Your task to perform on an android device: empty trash in google photos Image 0: 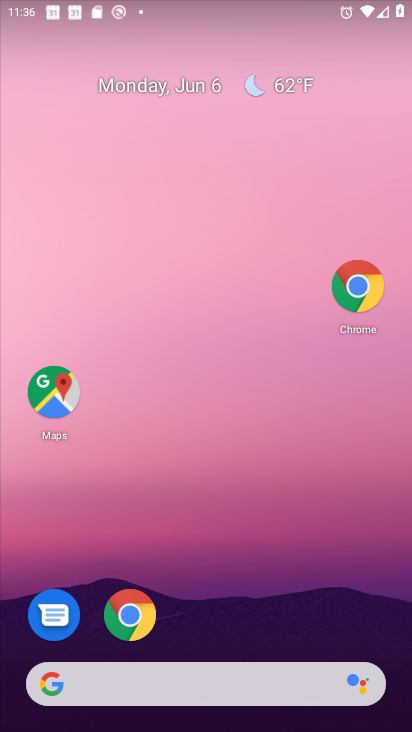
Step 0: drag from (212, 457) to (107, 85)
Your task to perform on an android device: empty trash in google photos Image 1: 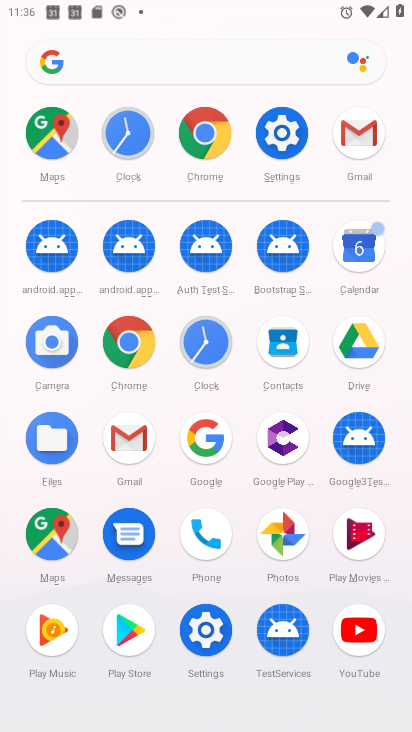
Step 1: click (284, 532)
Your task to perform on an android device: empty trash in google photos Image 2: 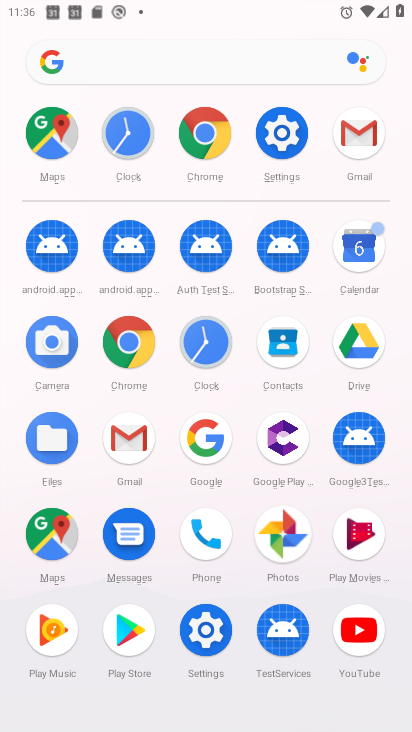
Step 2: click (285, 531)
Your task to perform on an android device: empty trash in google photos Image 3: 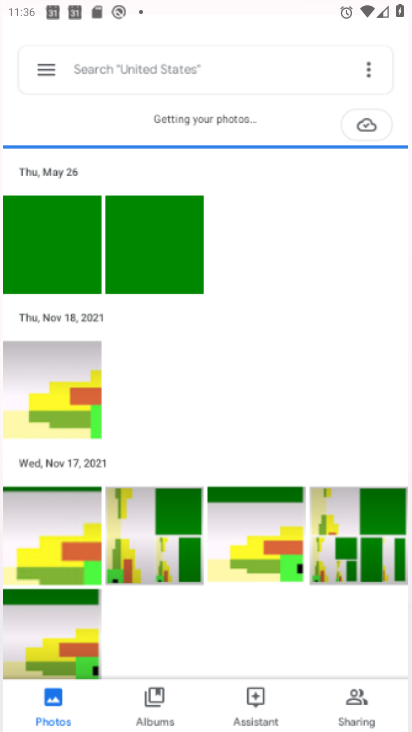
Step 3: click (285, 531)
Your task to perform on an android device: empty trash in google photos Image 4: 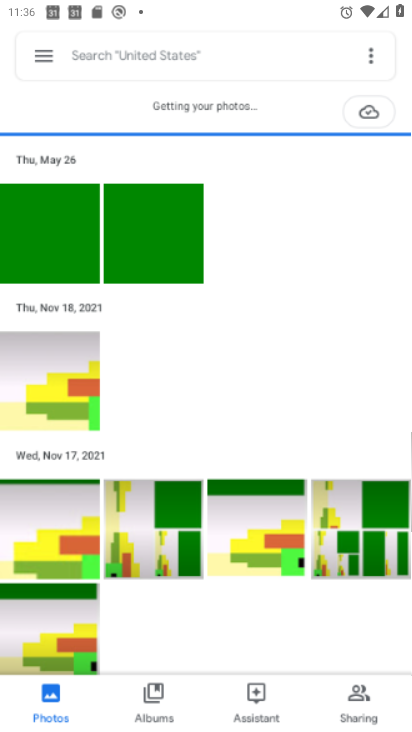
Step 4: click (286, 531)
Your task to perform on an android device: empty trash in google photos Image 5: 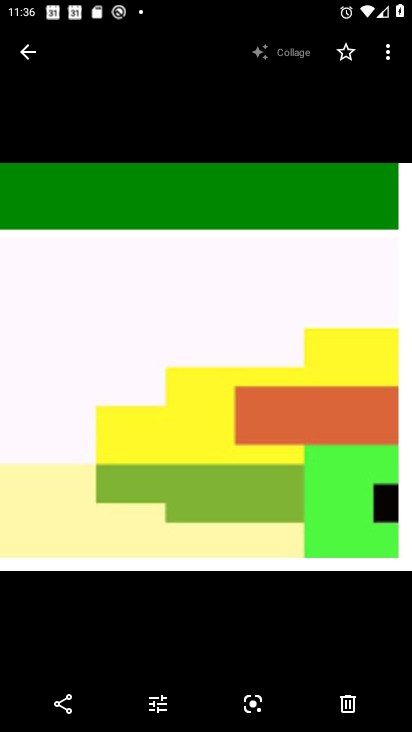
Step 5: click (35, 52)
Your task to perform on an android device: empty trash in google photos Image 6: 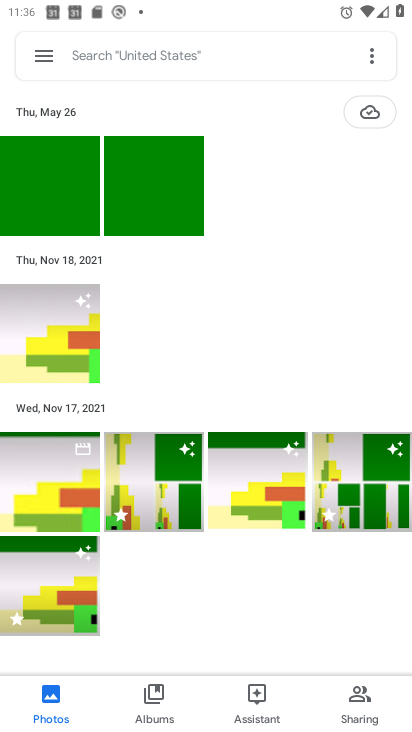
Step 6: click (42, 52)
Your task to perform on an android device: empty trash in google photos Image 7: 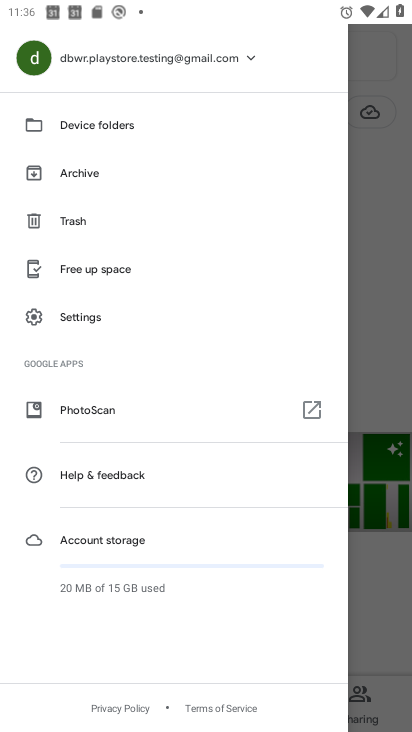
Step 7: click (74, 221)
Your task to perform on an android device: empty trash in google photos Image 8: 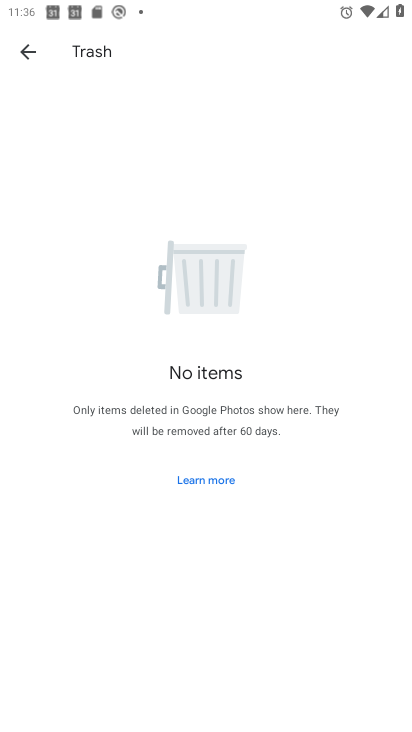
Step 8: task complete